Your task to perform on an android device: What's the weather going to be this weekend? Image 0: 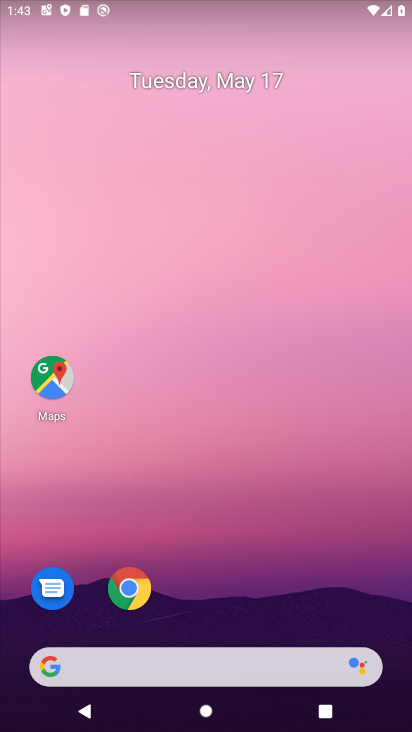
Step 0: click (141, 590)
Your task to perform on an android device: What's the weather going to be this weekend? Image 1: 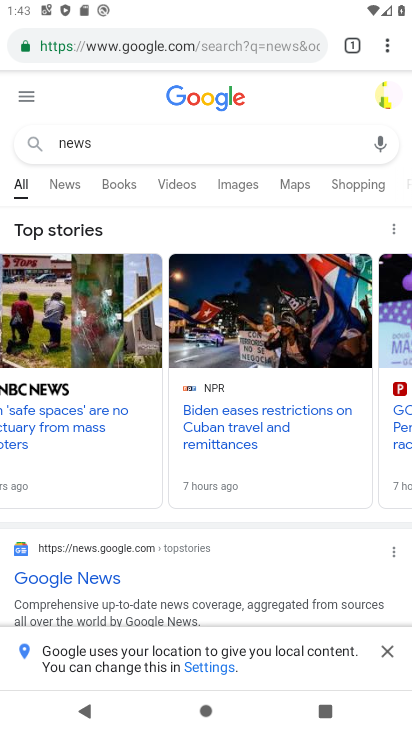
Step 1: click (330, 141)
Your task to perform on an android device: What's the weather going to be this weekend? Image 2: 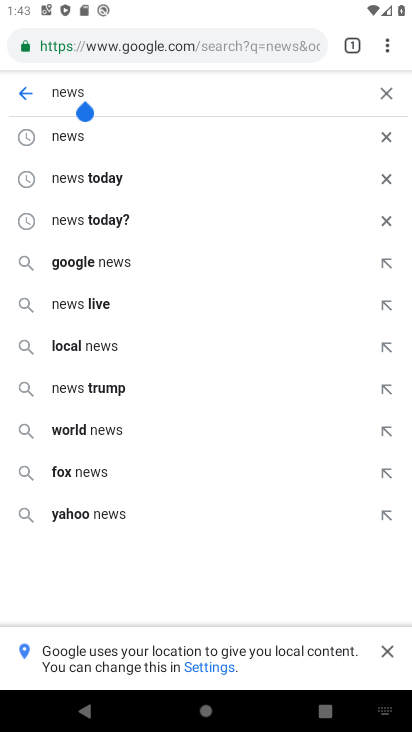
Step 2: click (388, 93)
Your task to perform on an android device: What's the weather going to be this weekend? Image 3: 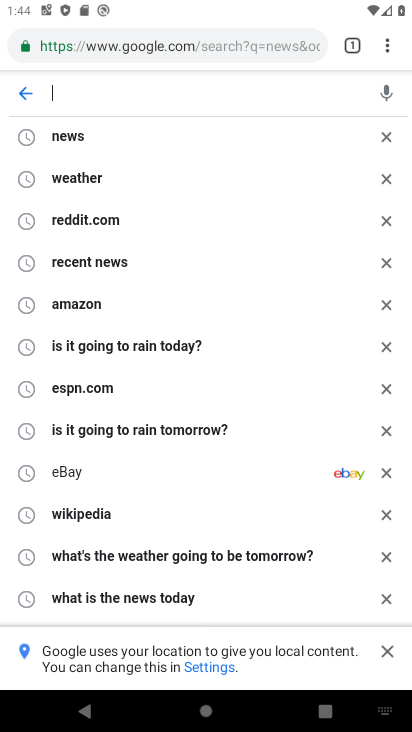
Step 3: type "what's the weather going to be this weekend?"
Your task to perform on an android device: What's the weather going to be this weekend? Image 4: 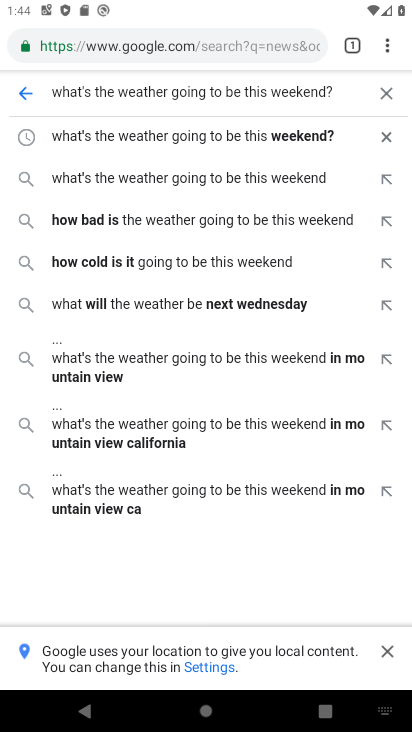
Step 4: click (263, 135)
Your task to perform on an android device: What's the weather going to be this weekend? Image 5: 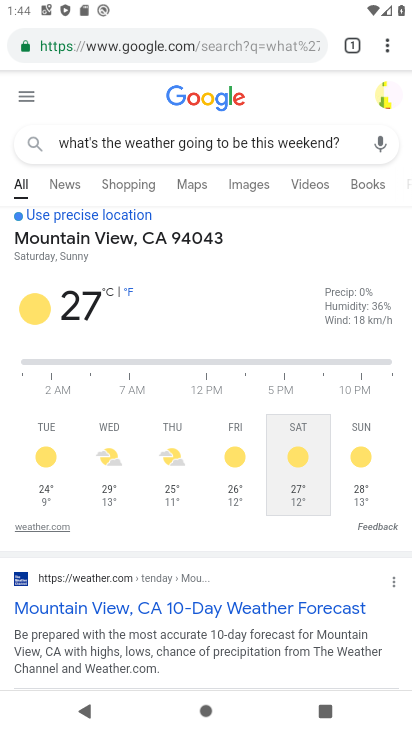
Step 5: drag from (280, 472) to (279, 326)
Your task to perform on an android device: What's the weather going to be this weekend? Image 6: 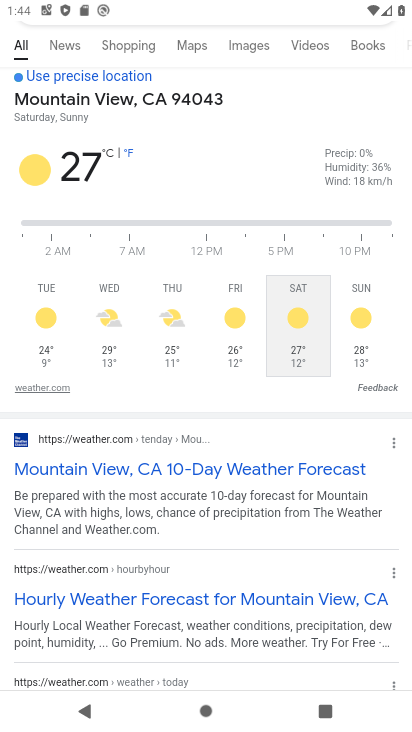
Step 6: drag from (287, 330) to (212, 333)
Your task to perform on an android device: What's the weather going to be this weekend? Image 7: 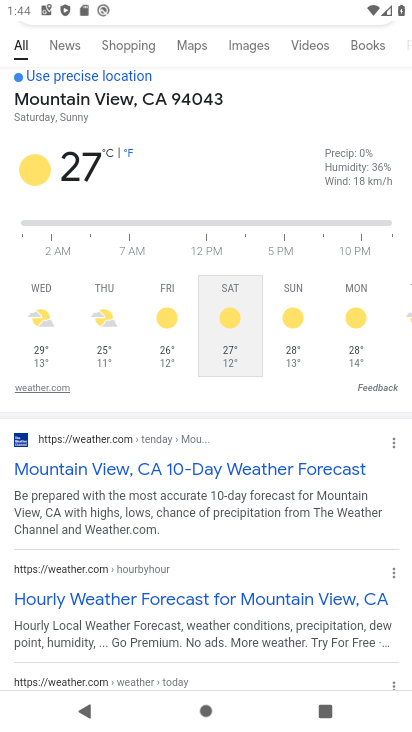
Step 7: click (297, 323)
Your task to perform on an android device: What's the weather going to be this weekend? Image 8: 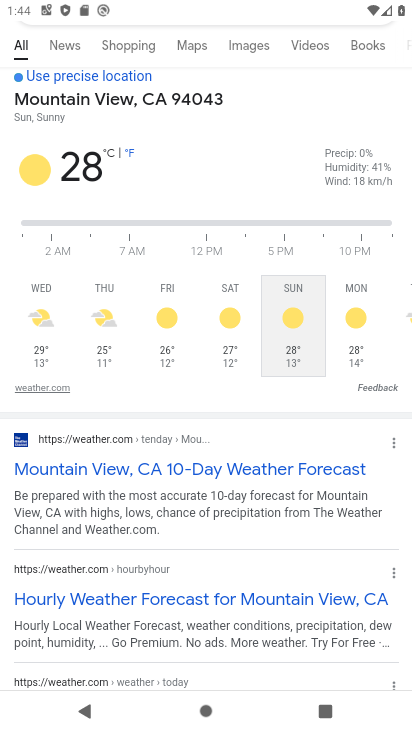
Step 8: click (233, 334)
Your task to perform on an android device: What's the weather going to be this weekend? Image 9: 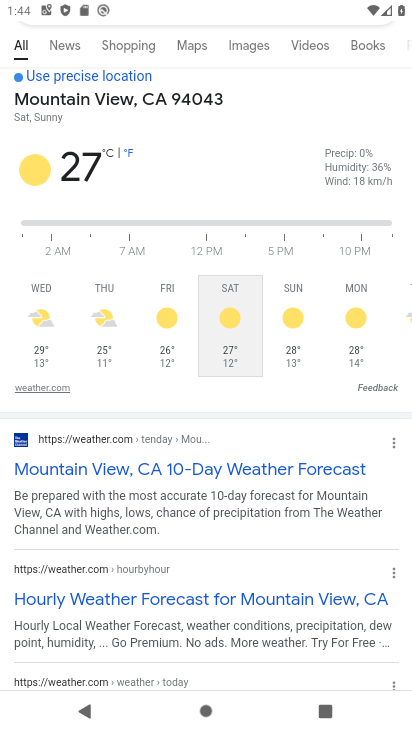
Step 9: task complete